Your task to perform on an android device: allow cookies in the chrome app Image 0: 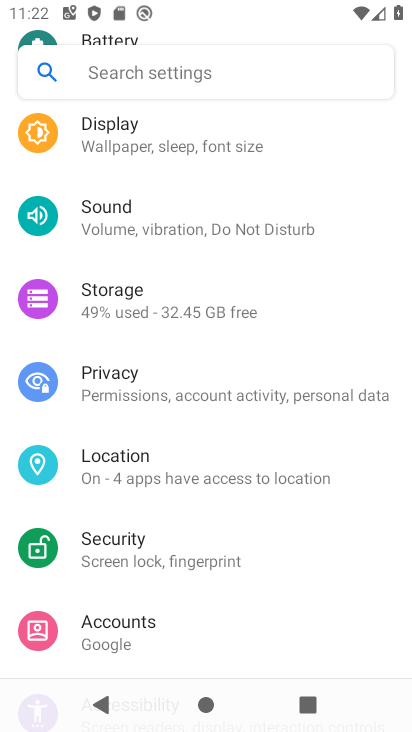
Step 0: press home button
Your task to perform on an android device: allow cookies in the chrome app Image 1: 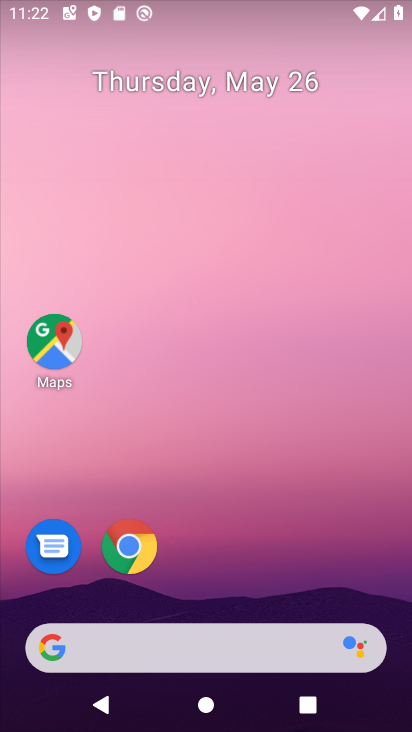
Step 1: click (133, 542)
Your task to perform on an android device: allow cookies in the chrome app Image 2: 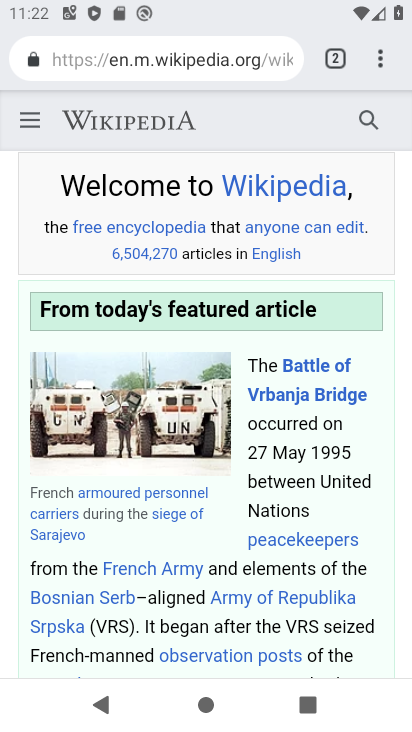
Step 2: click (372, 49)
Your task to perform on an android device: allow cookies in the chrome app Image 3: 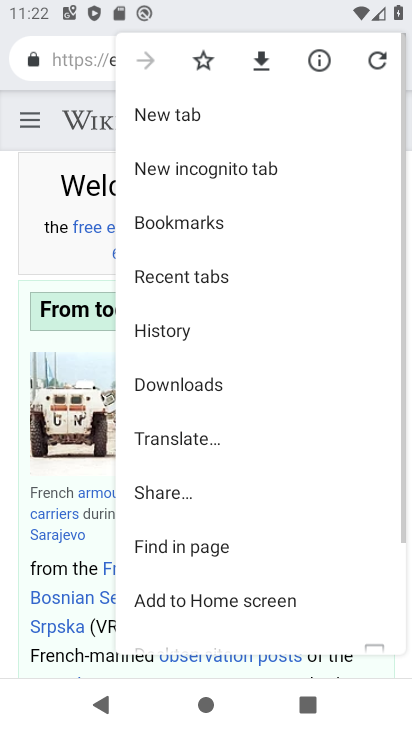
Step 3: drag from (218, 583) to (271, 212)
Your task to perform on an android device: allow cookies in the chrome app Image 4: 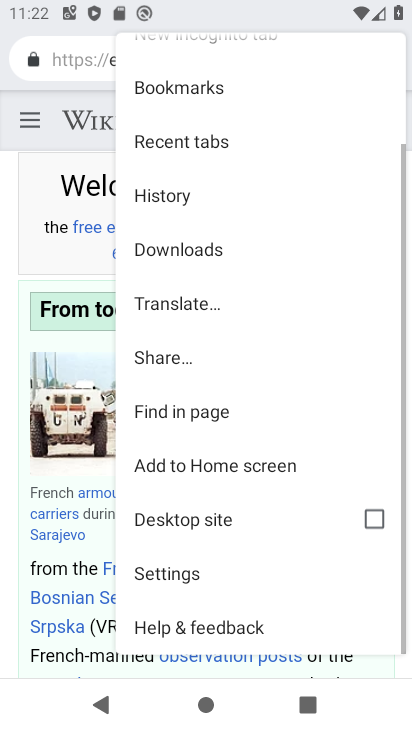
Step 4: click (169, 581)
Your task to perform on an android device: allow cookies in the chrome app Image 5: 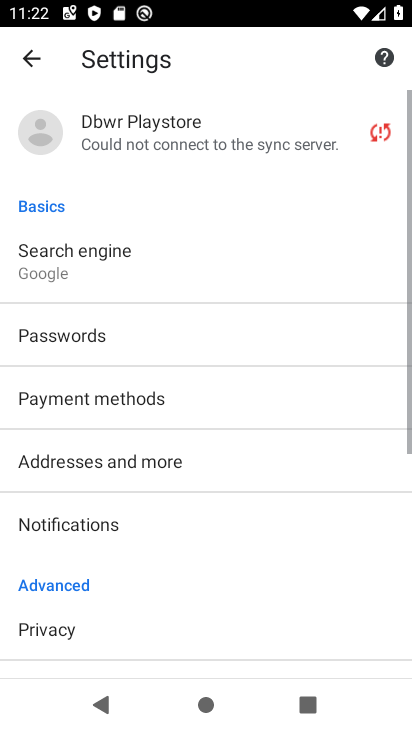
Step 5: drag from (191, 574) to (210, 168)
Your task to perform on an android device: allow cookies in the chrome app Image 6: 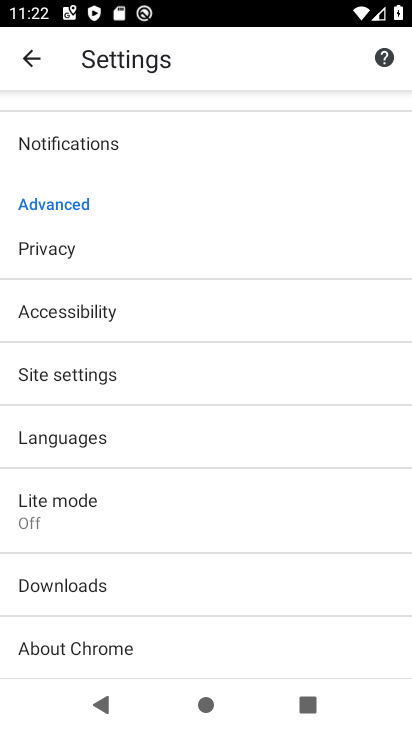
Step 6: click (82, 367)
Your task to perform on an android device: allow cookies in the chrome app Image 7: 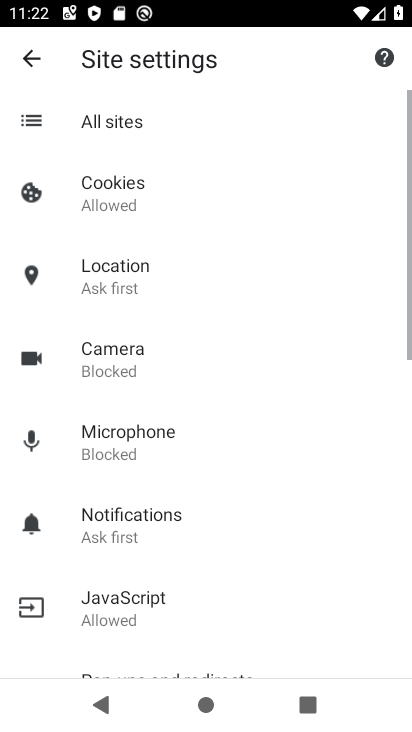
Step 7: click (124, 187)
Your task to perform on an android device: allow cookies in the chrome app Image 8: 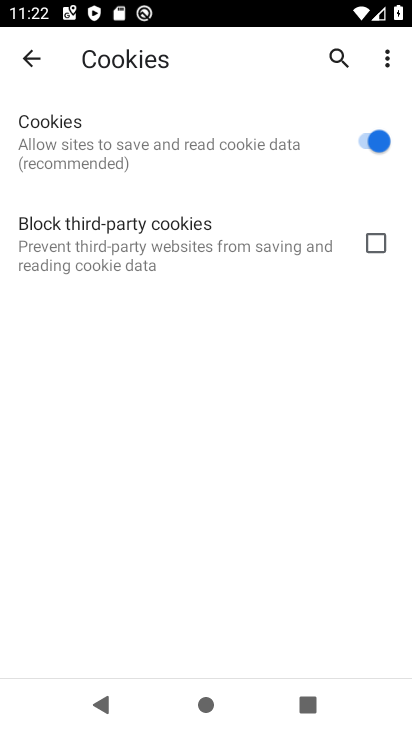
Step 8: task complete